Your task to perform on an android device: turn on location history Image 0: 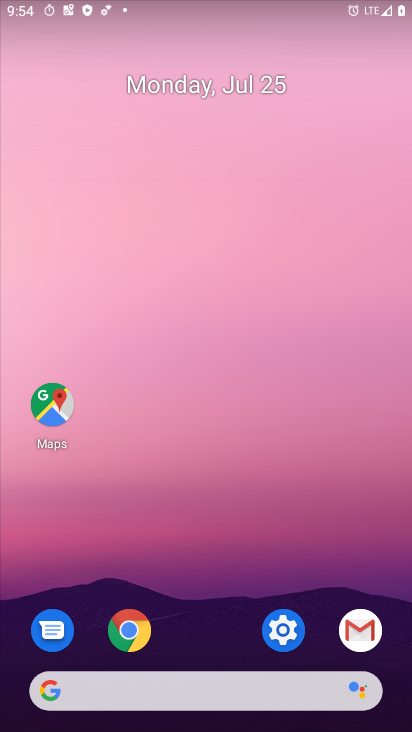
Step 0: click (278, 630)
Your task to perform on an android device: turn on location history Image 1: 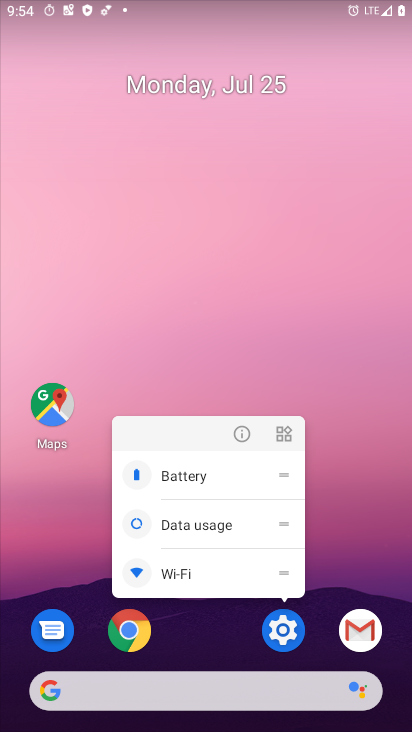
Step 1: click (269, 623)
Your task to perform on an android device: turn on location history Image 2: 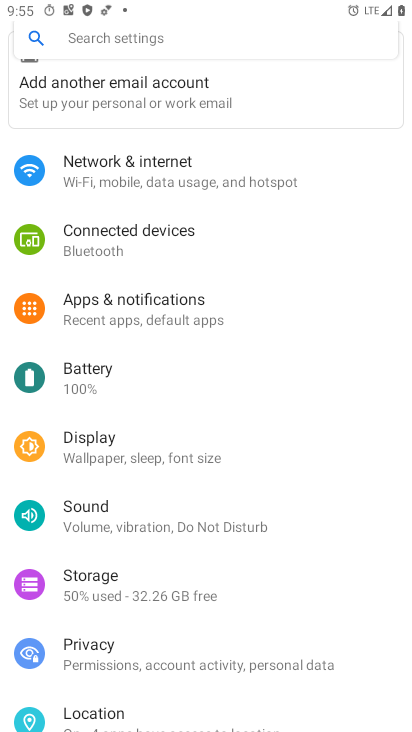
Step 2: click (128, 713)
Your task to perform on an android device: turn on location history Image 3: 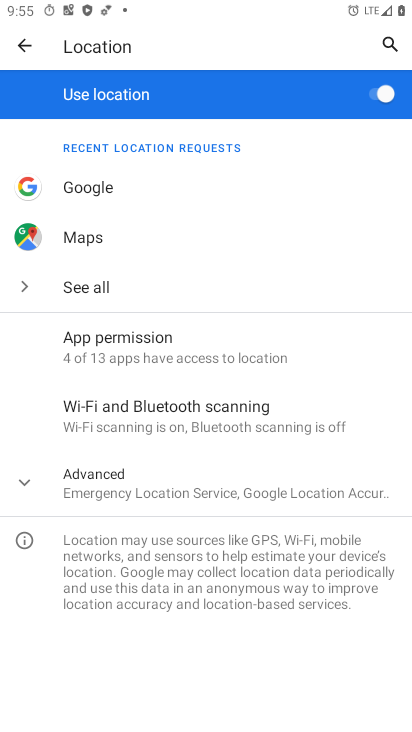
Step 3: click (58, 473)
Your task to perform on an android device: turn on location history Image 4: 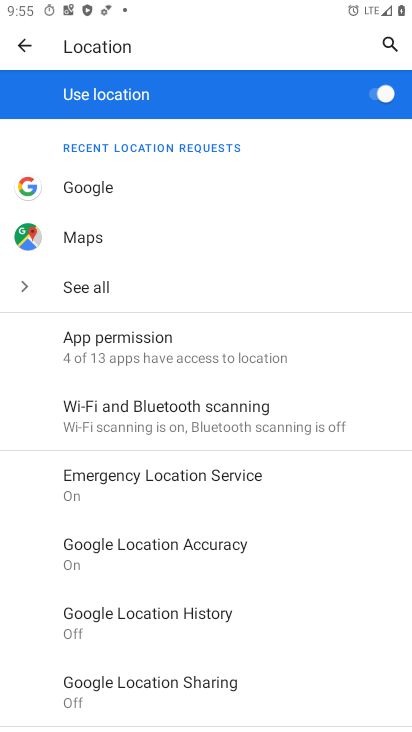
Step 4: click (182, 610)
Your task to perform on an android device: turn on location history Image 5: 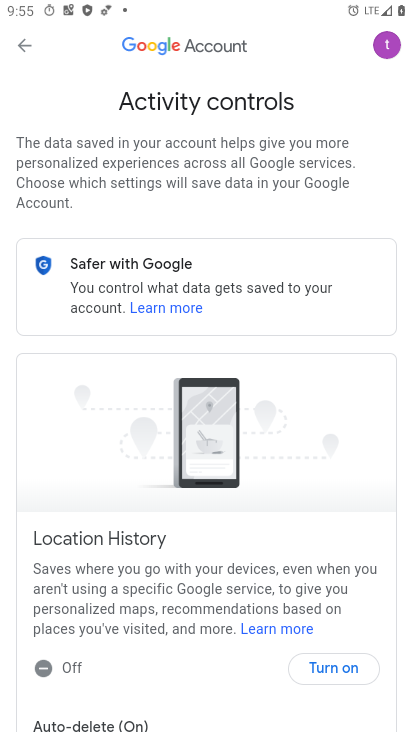
Step 5: drag from (134, 640) to (162, 353)
Your task to perform on an android device: turn on location history Image 6: 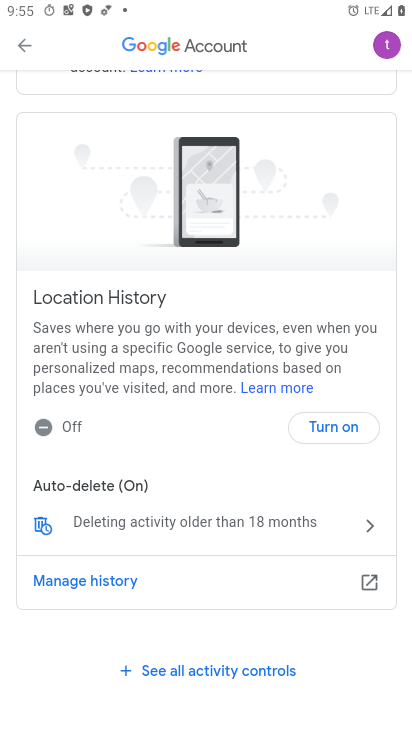
Step 6: click (312, 414)
Your task to perform on an android device: turn on location history Image 7: 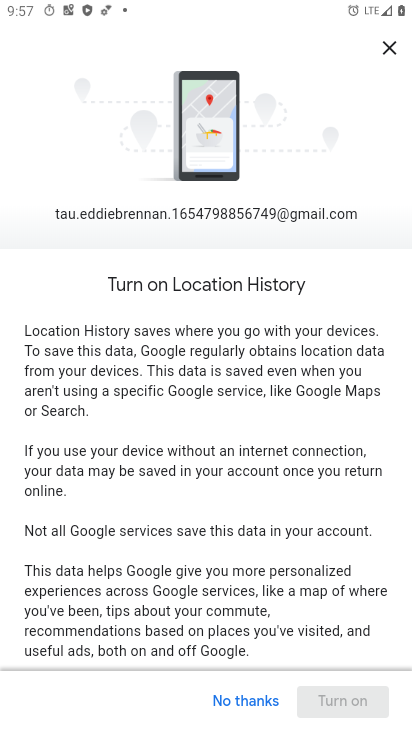
Step 7: task complete